Your task to perform on an android device: change alarm snooze length Image 0: 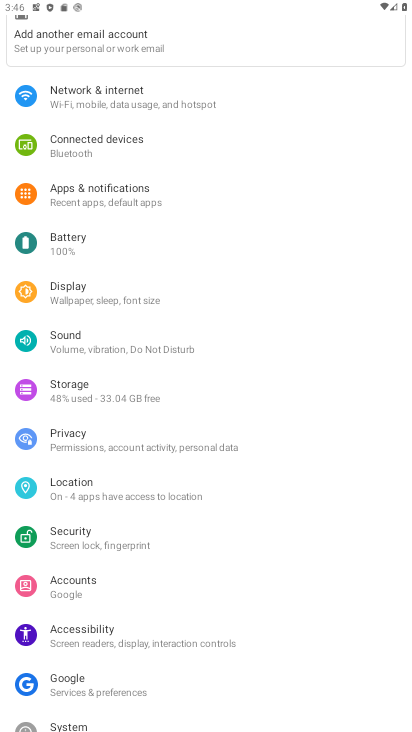
Step 0: press home button
Your task to perform on an android device: change alarm snooze length Image 1: 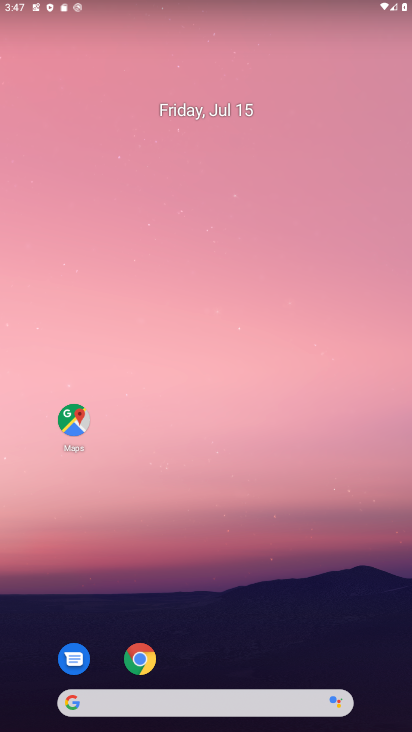
Step 1: drag from (177, 623) to (219, 0)
Your task to perform on an android device: change alarm snooze length Image 2: 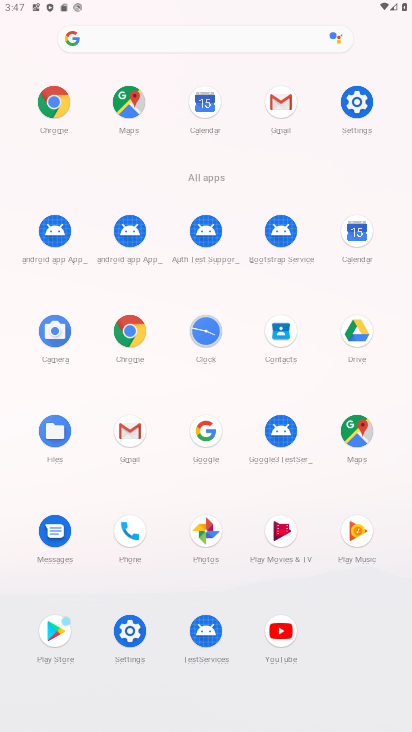
Step 2: click (354, 113)
Your task to perform on an android device: change alarm snooze length Image 3: 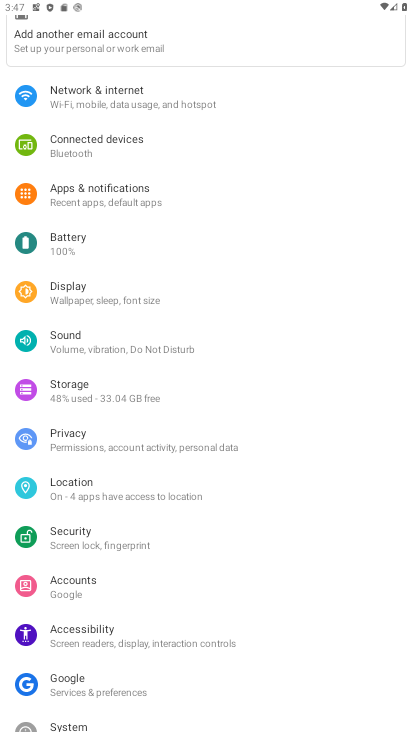
Step 3: press back button
Your task to perform on an android device: change alarm snooze length Image 4: 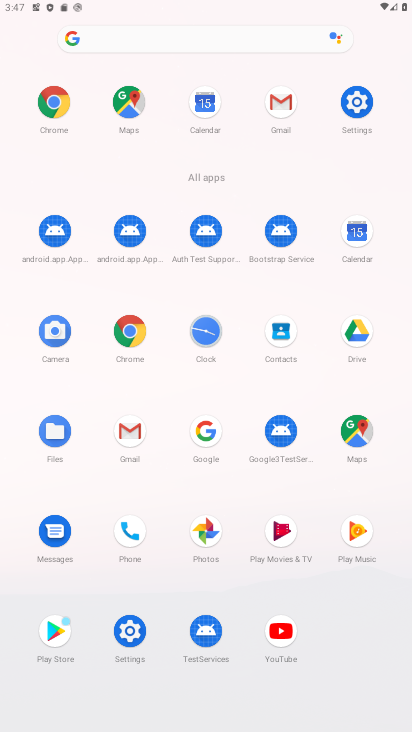
Step 4: click (212, 336)
Your task to perform on an android device: change alarm snooze length Image 5: 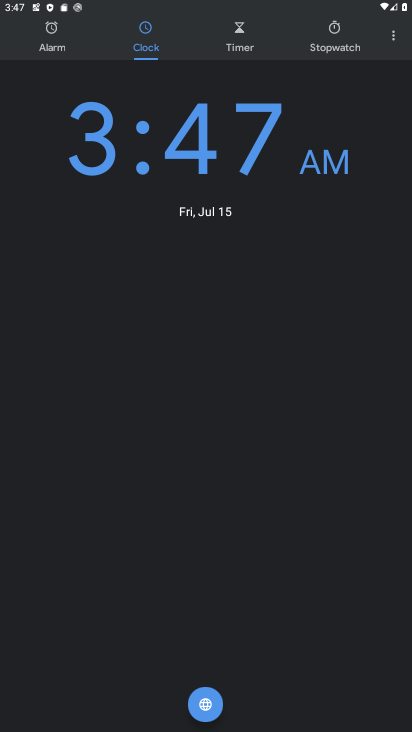
Step 5: click (48, 45)
Your task to perform on an android device: change alarm snooze length Image 6: 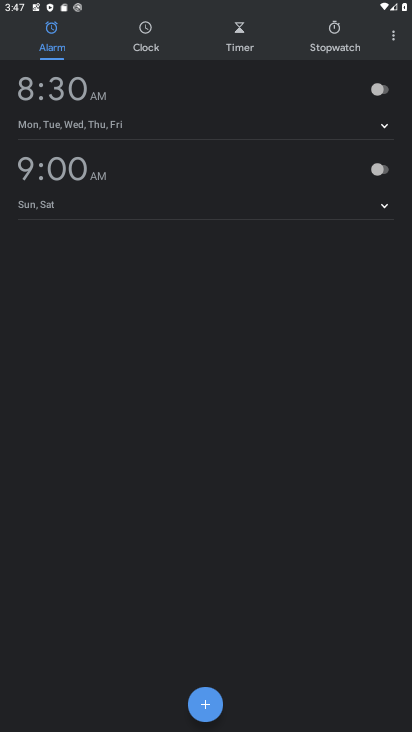
Step 6: click (398, 36)
Your task to perform on an android device: change alarm snooze length Image 7: 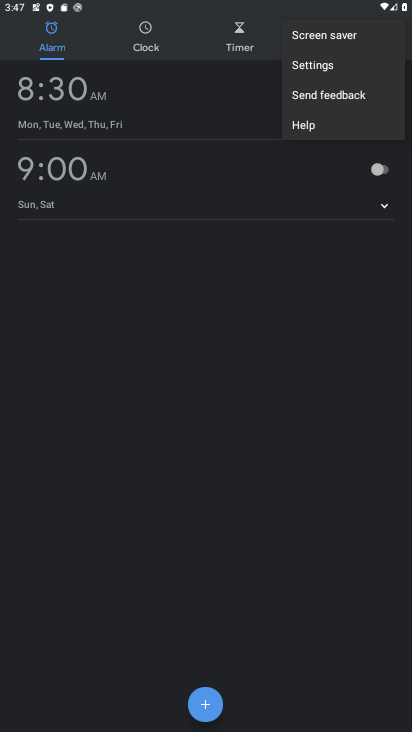
Step 7: click (306, 70)
Your task to perform on an android device: change alarm snooze length Image 8: 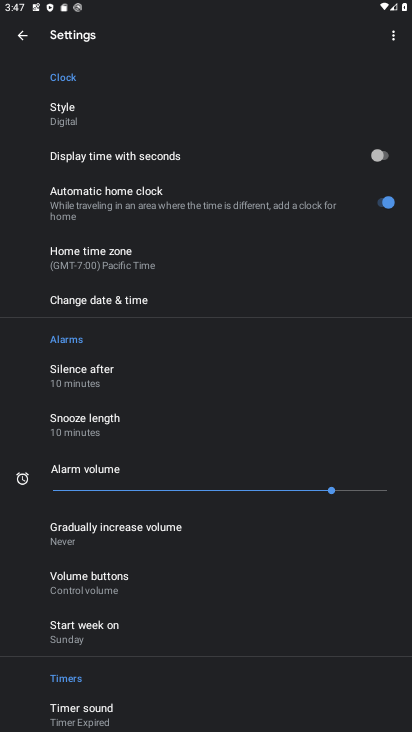
Step 8: click (73, 422)
Your task to perform on an android device: change alarm snooze length Image 9: 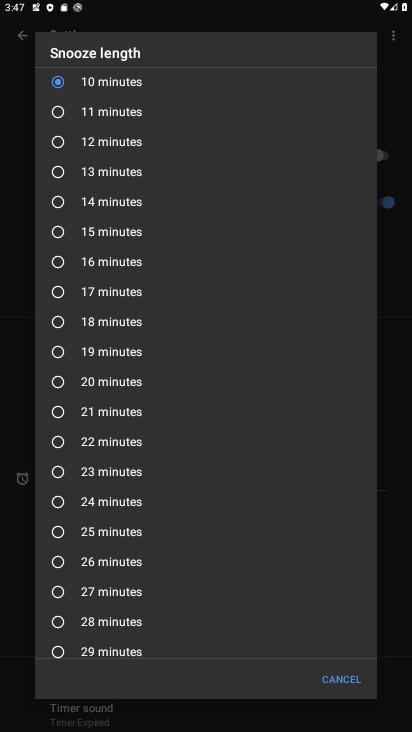
Step 9: click (73, 422)
Your task to perform on an android device: change alarm snooze length Image 10: 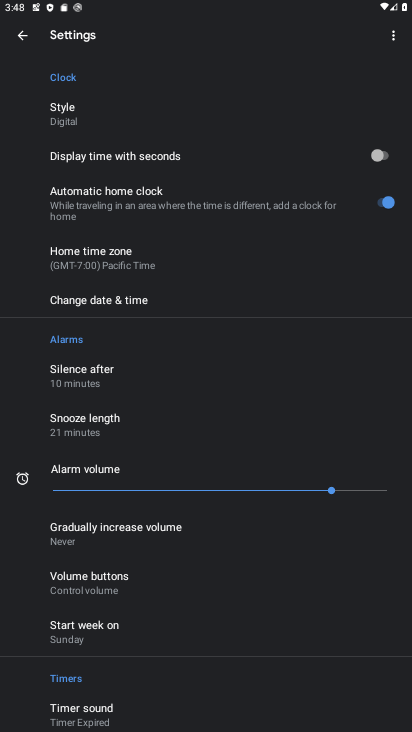
Step 10: click (58, 412)
Your task to perform on an android device: change alarm snooze length Image 11: 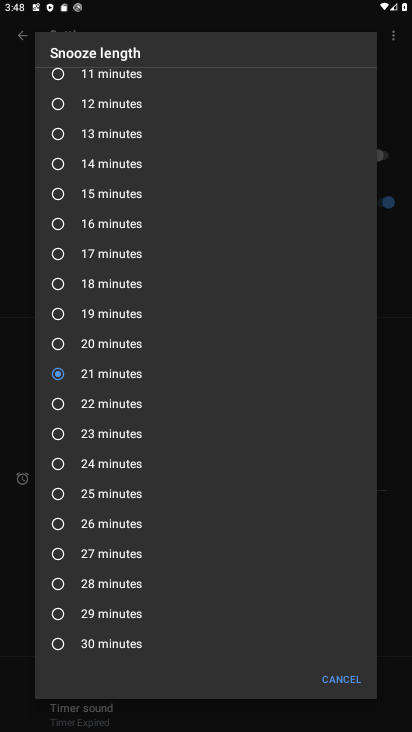
Step 11: task complete